Your task to perform on an android device: open chrome privacy settings Image 0: 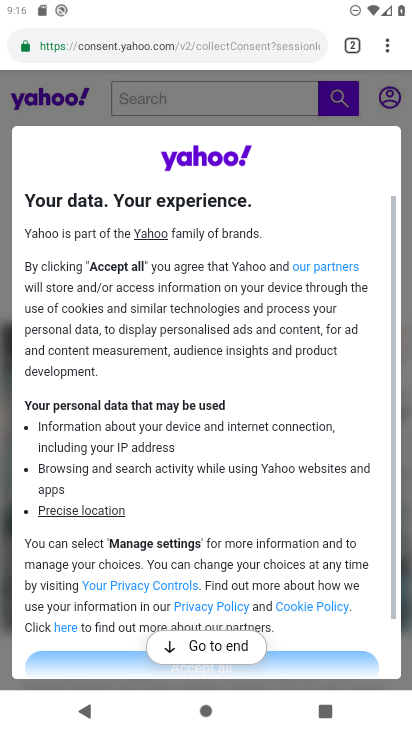
Step 0: click (388, 48)
Your task to perform on an android device: open chrome privacy settings Image 1: 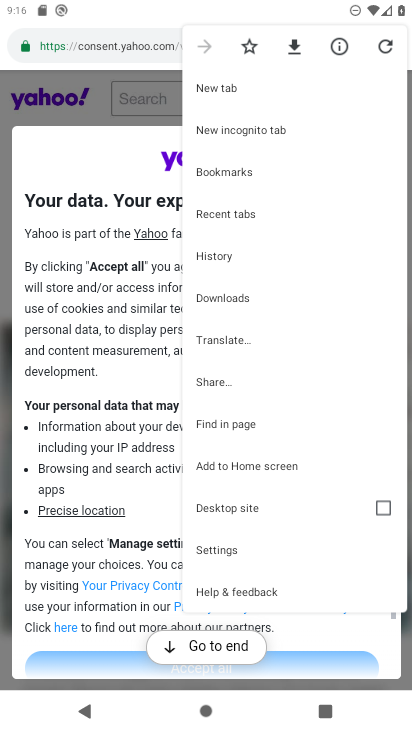
Step 1: click (201, 544)
Your task to perform on an android device: open chrome privacy settings Image 2: 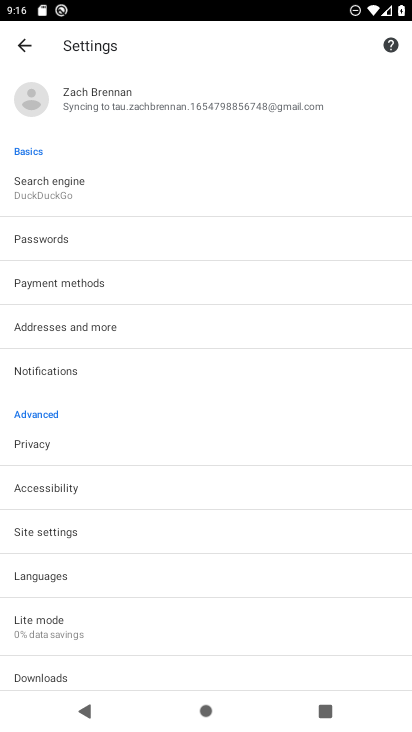
Step 2: click (96, 444)
Your task to perform on an android device: open chrome privacy settings Image 3: 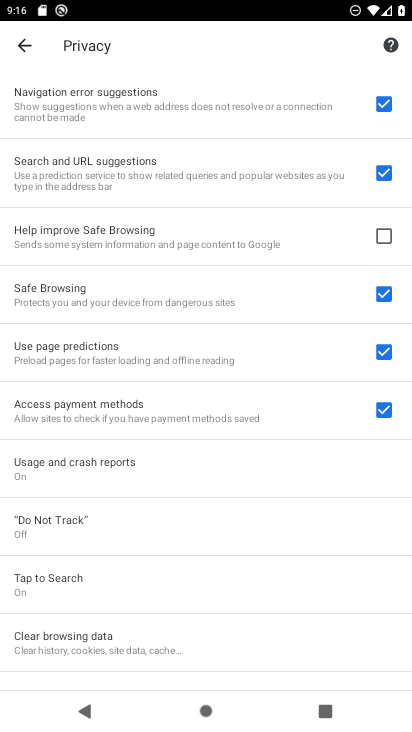
Step 3: task complete